Your task to perform on an android device: empty trash in google photos Image 0: 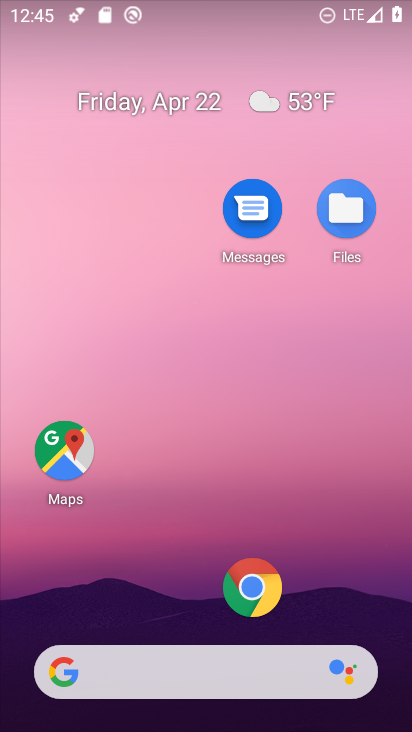
Step 0: drag from (163, 540) to (246, 183)
Your task to perform on an android device: empty trash in google photos Image 1: 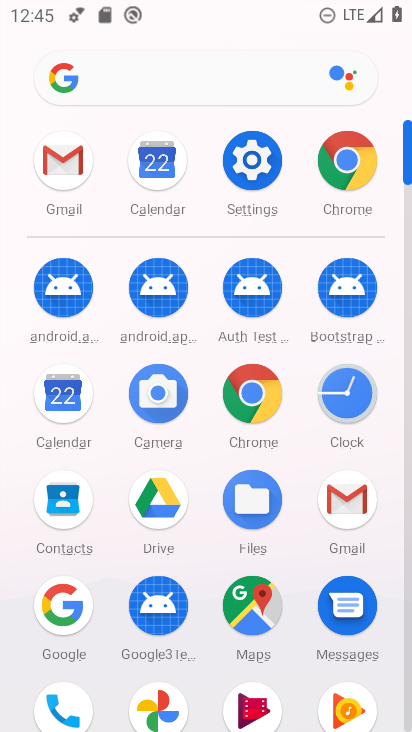
Step 1: drag from (193, 679) to (216, 396)
Your task to perform on an android device: empty trash in google photos Image 2: 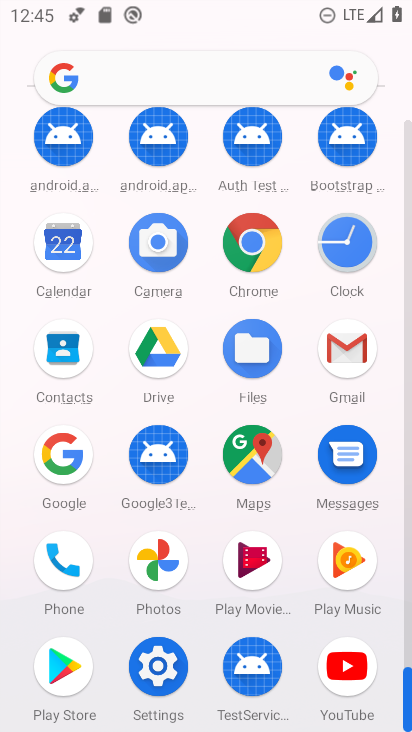
Step 2: click (153, 558)
Your task to perform on an android device: empty trash in google photos Image 3: 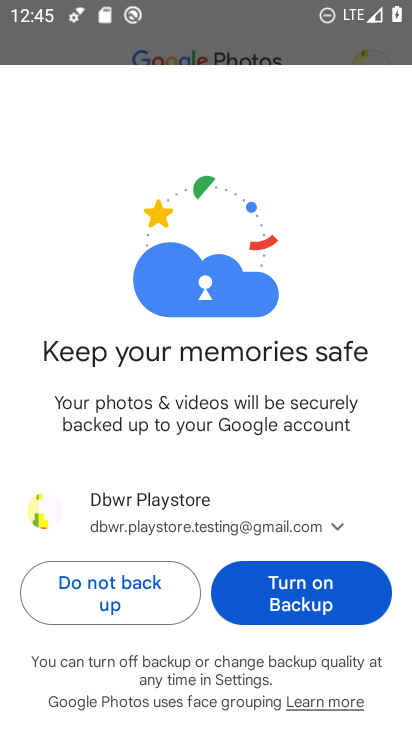
Step 3: click (108, 601)
Your task to perform on an android device: empty trash in google photos Image 4: 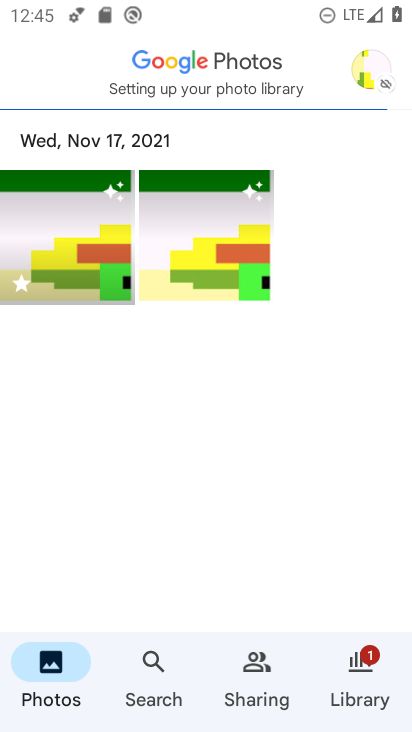
Step 4: click (369, 72)
Your task to perform on an android device: empty trash in google photos Image 5: 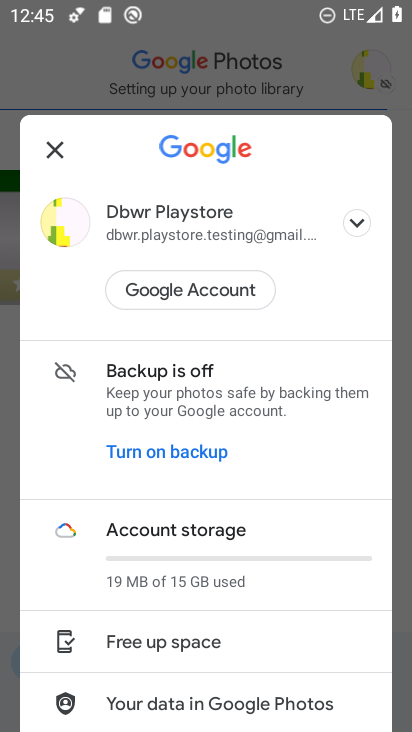
Step 5: drag from (213, 598) to (260, 211)
Your task to perform on an android device: empty trash in google photos Image 6: 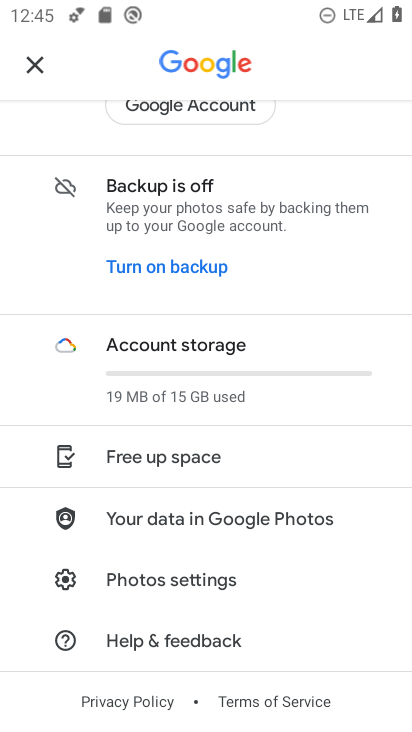
Step 6: click (38, 67)
Your task to perform on an android device: empty trash in google photos Image 7: 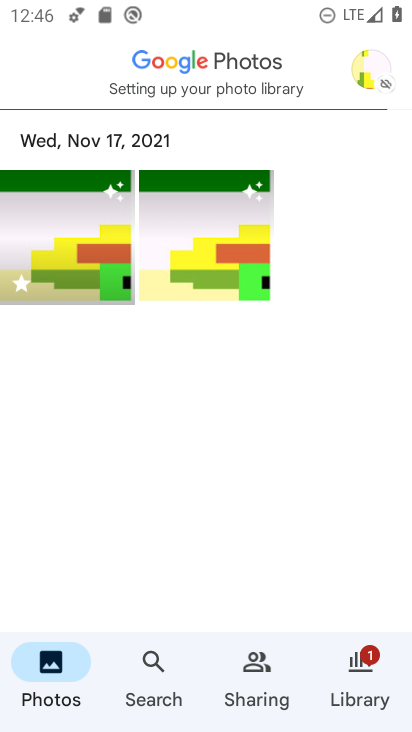
Step 7: click (362, 666)
Your task to perform on an android device: empty trash in google photos Image 8: 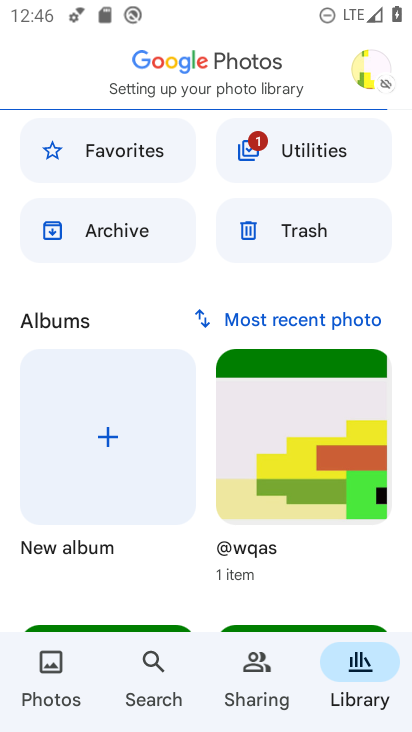
Step 8: click (269, 237)
Your task to perform on an android device: empty trash in google photos Image 9: 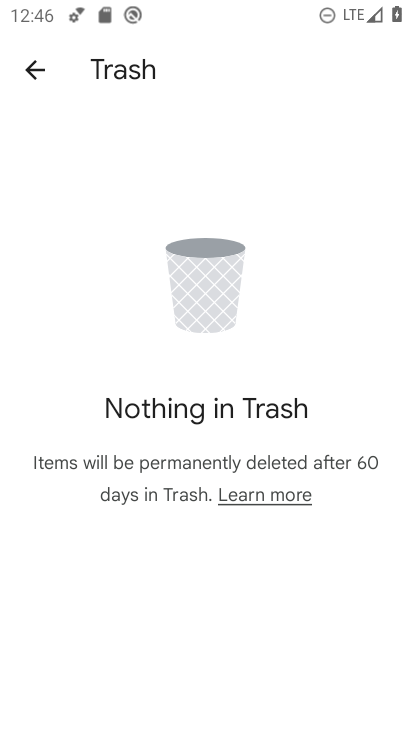
Step 9: task complete